Your task to perform on an android device: turn smart compose on in the gmail app Image 0: 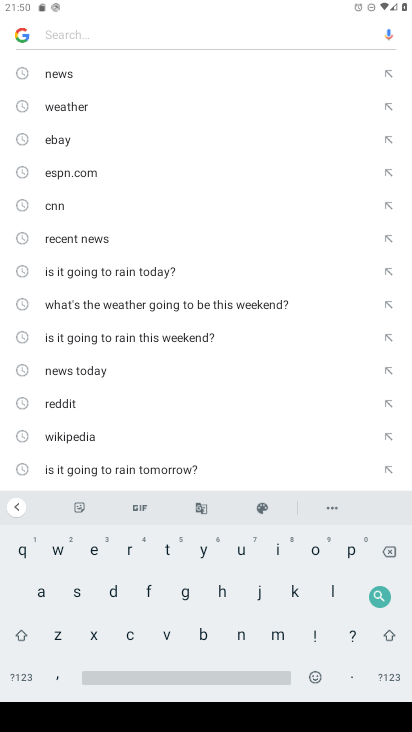
Step 0: press home button
Your task to perform on an android device: turn smart compose on in the gmail app Image 1: 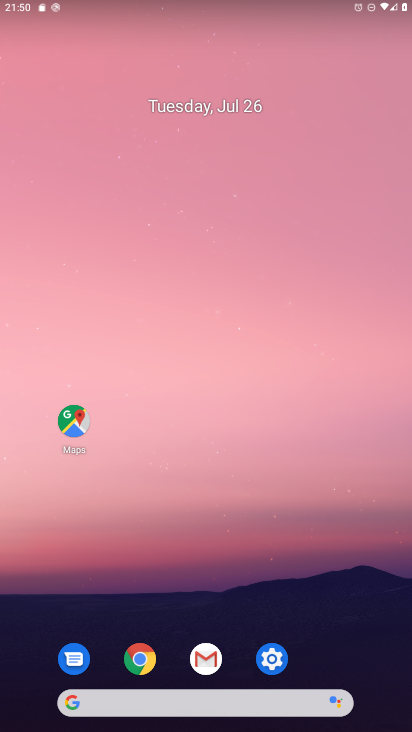
Step 1: click (210, 639)
Your task to perform on an android device: turn smart compose on in the gmail app Image 2: 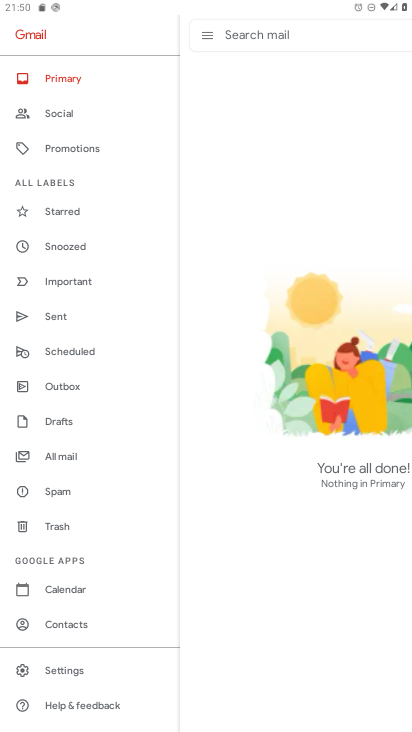
Step 2: click (72, 668)
Your task to perform on an android device: turn smart compose on in the gmail app Image 3: 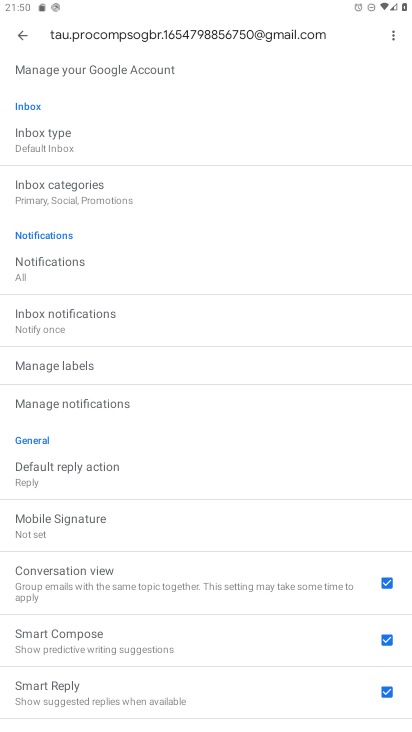
Step 3: click (136, 629)
Your task to perform on an android device: turn smart compose on in the gmail app Image 4: 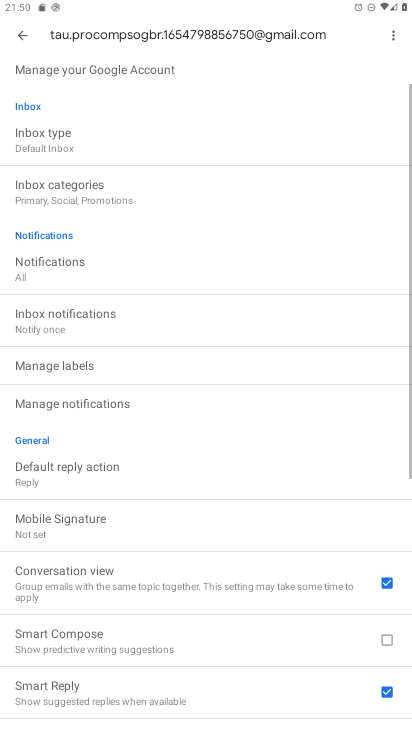
Step 4: click (136, 629)
Your task to perform on an android device: turn smart compose on in the gmail app Image 5: 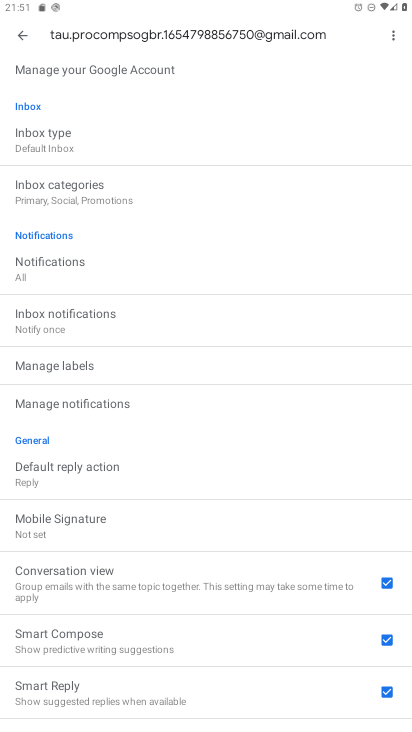
Step 5: task complete